Your task to perform on an android device: Open Chrome and go to settings Image 0: 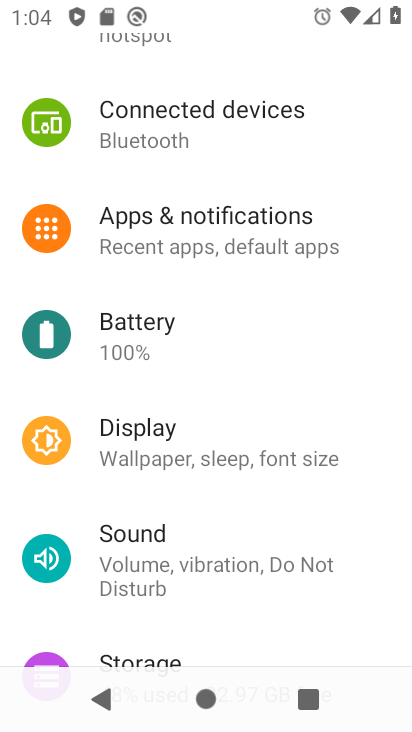
Step 0: press home button
Your task to perform on an android device: Open Chrome and go to settings Image 1: 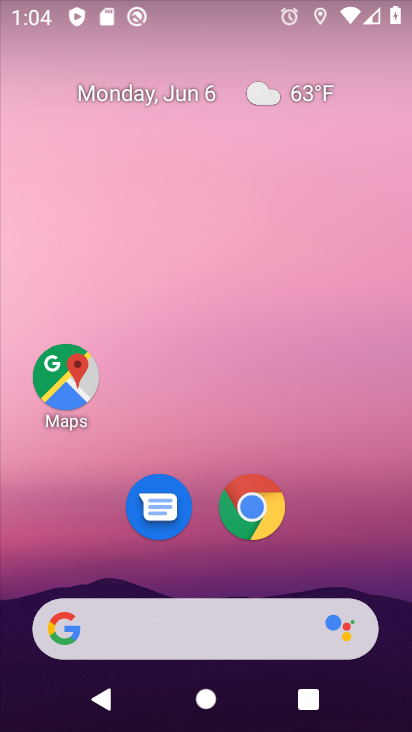
Step 1: click (262, 503)
Your task to perform on an android device: Open Chrome and go to settings Image 2: 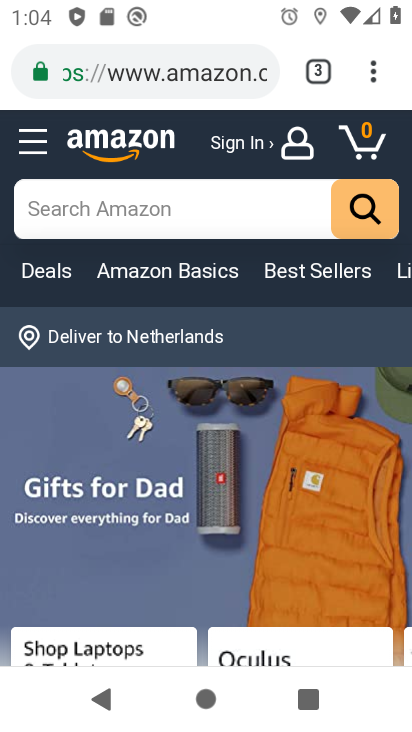
Step 2: click (371, 66)
Your task to perform on an android device: Open Chrome and go to settings Image 3: 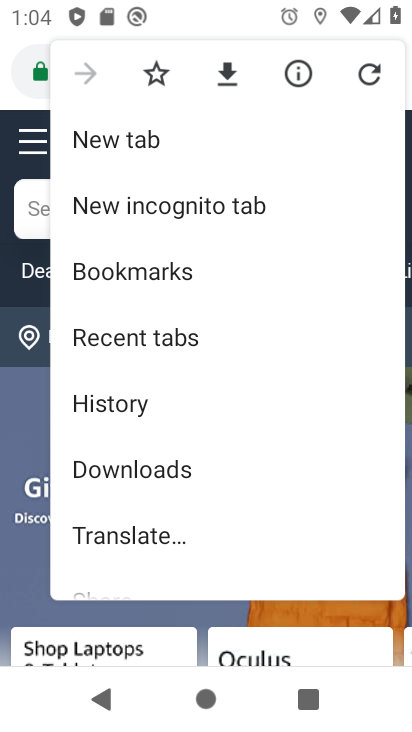
Step 3: drag from (235, 431) to (229, 112)
Your task to perform on an android device: Open Chrome and go to settings Image 4: 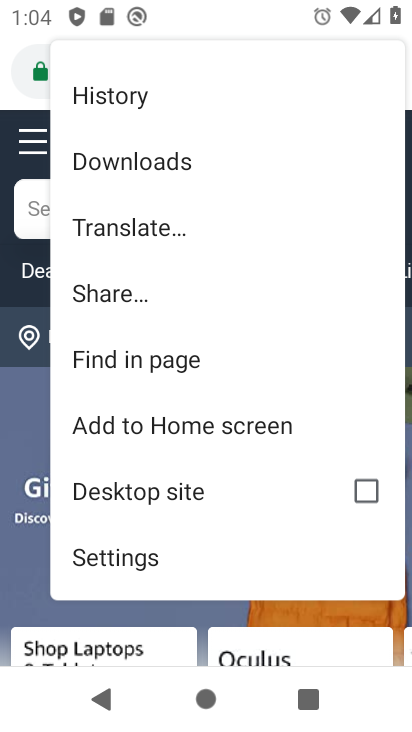
Step 4: click (186, 544)
Your task to perform on an android device: Open Chrome and go to settings Image 5: 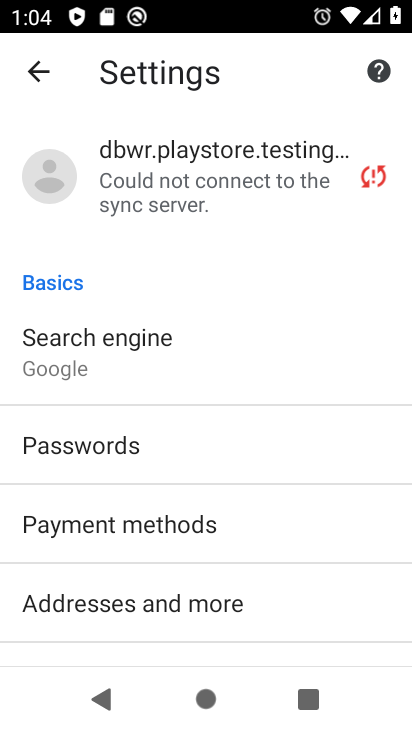
Step 5: task complete